Your task to perform on an android device: open app "Facebook Lite" (install if not already installed) Image 0: 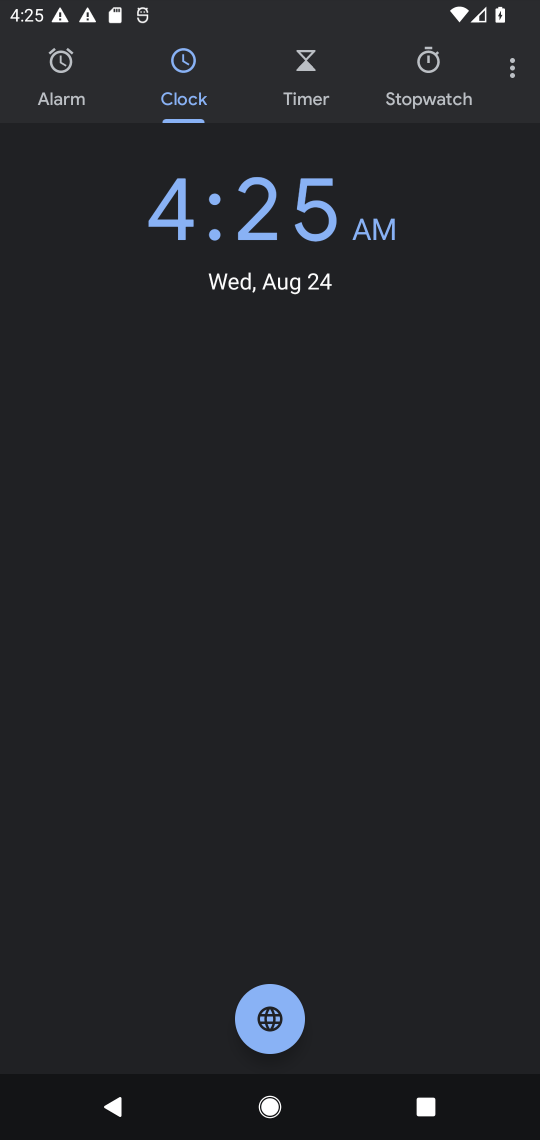
Step 0: click (269, 882)
Your task to perform on an android device: open app "Facebook Lite" (install if not already installed) Image 1: 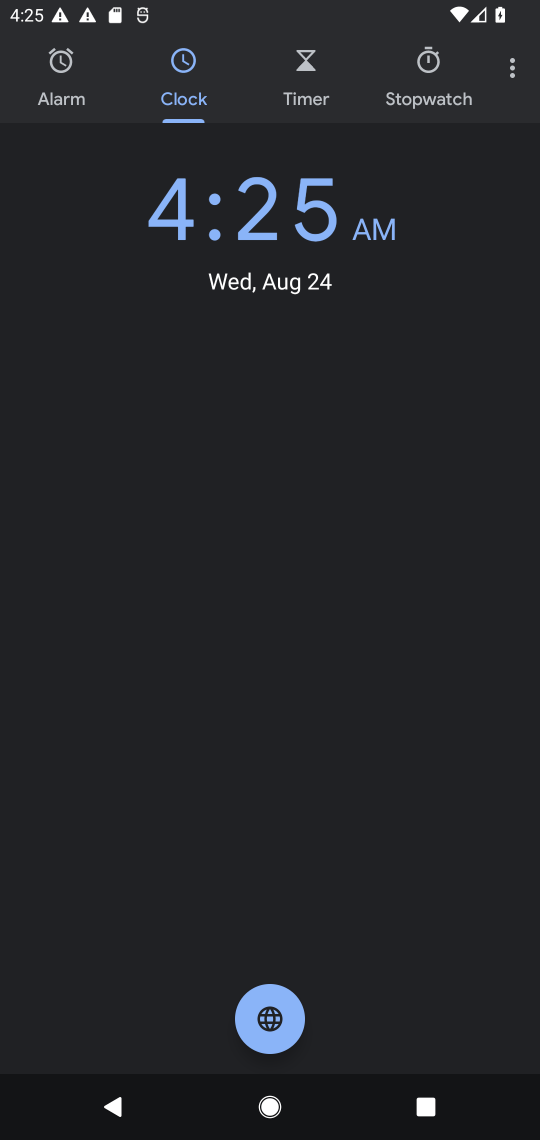
Step 1: press home button
Your task to perform on an android device: open app "Facebook Lite" (install if not already installed) Image 2: 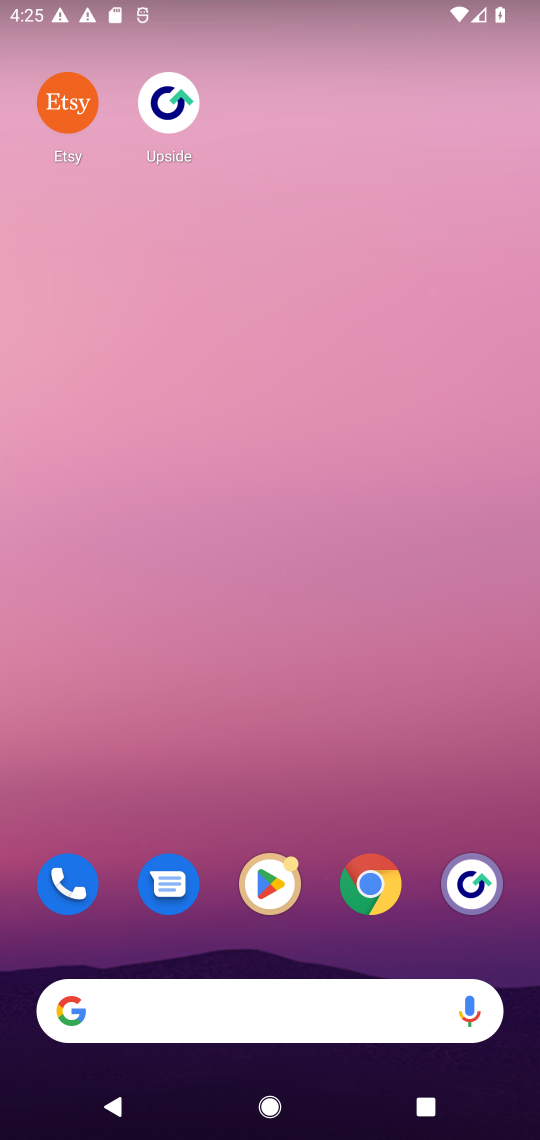
Step 2: click (268, 884)
Your task to perform on an android device: open app "Facebook Lite" (install if not already installed) Image 3: 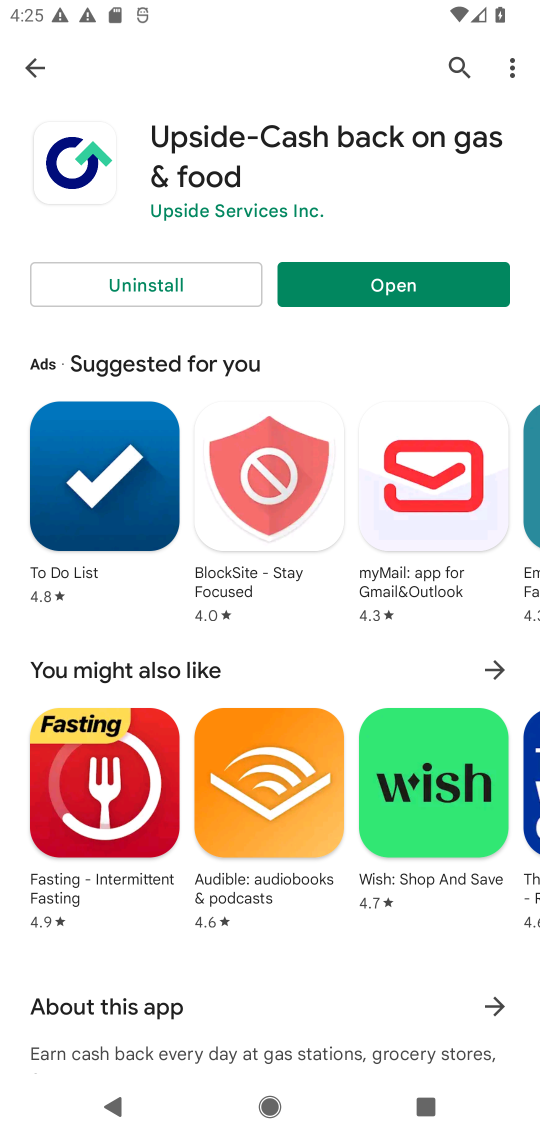
Step 3: click (37, 72)
Your task to perform on an android device: open app "Facebook Lite" (install if not already installed) Image 4: 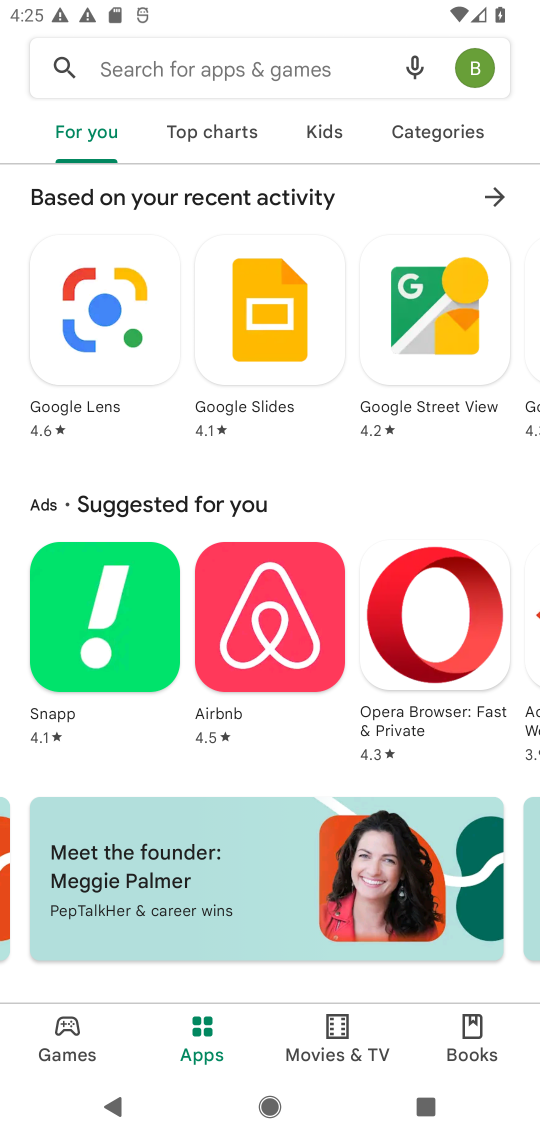
Step 4: click (247, 55)
Your task to perform on an android device: open app "Facebook Lite" (install if not already installed) Image 5: 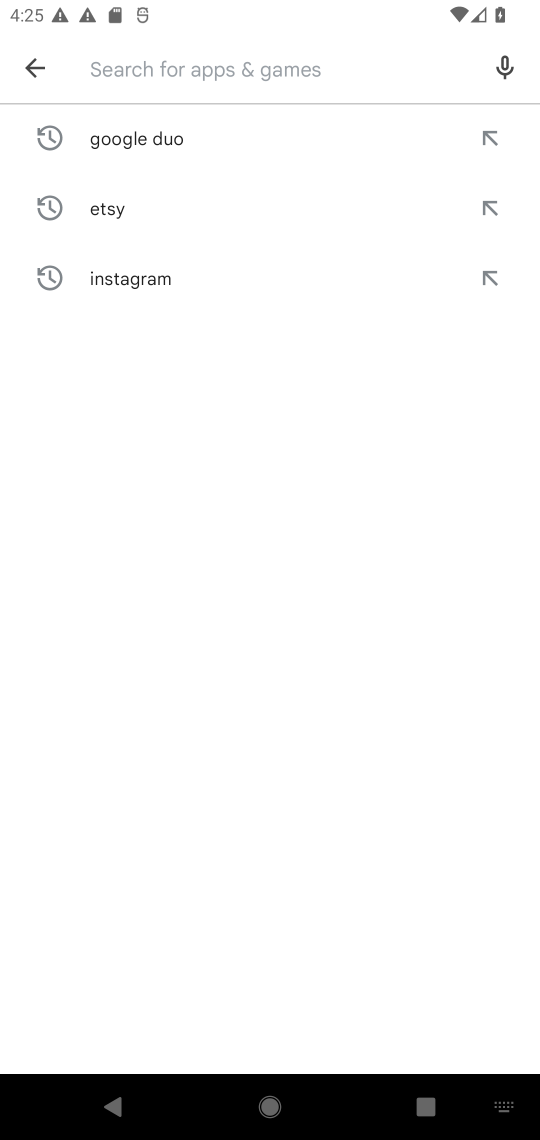
Step 5: type "Facebook Lite"
Your task to perform on an android device: open app "Facebook Lite" (install if not already installed) Image 6: 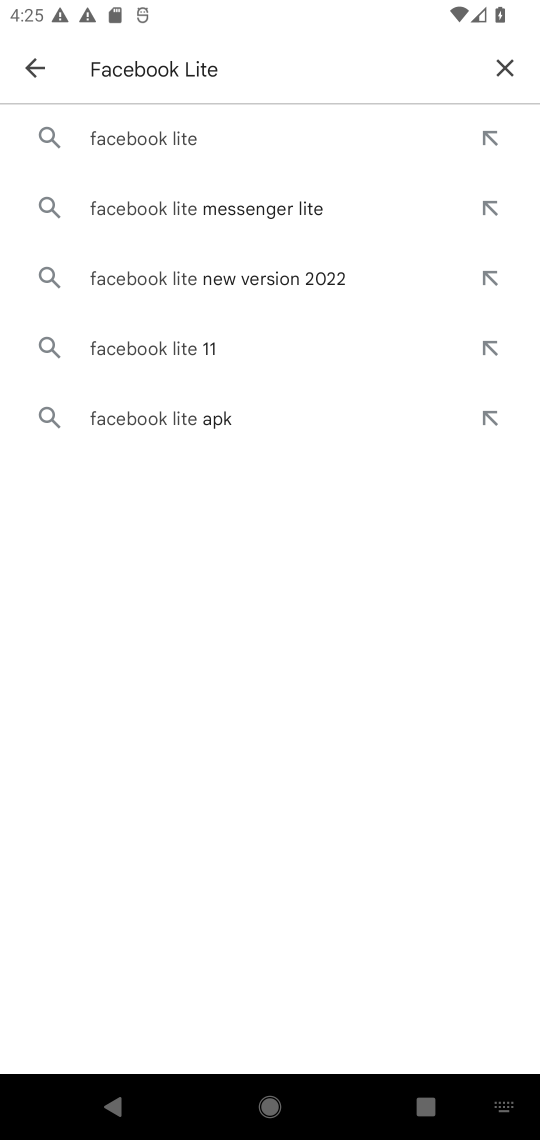
Step 6: click (137, 125)
Your task to perform on an android device: open app "Facebook Lite" (install if not already installed) Image 7: 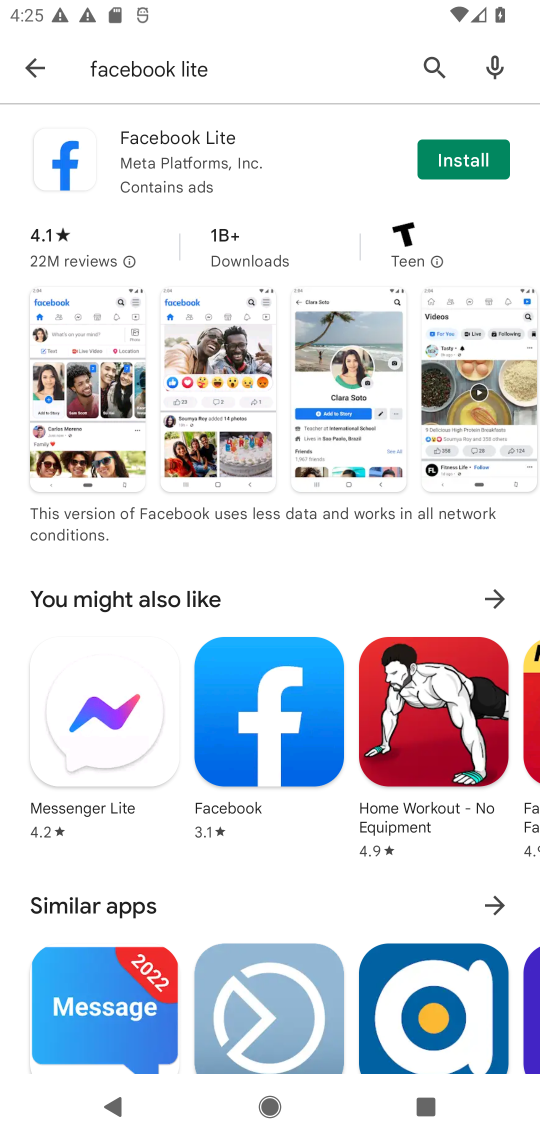
Step 7: click (473, 152)
Your task to perform on an android device: open app "Facebook Lite" (install if not already installed) Image 8: 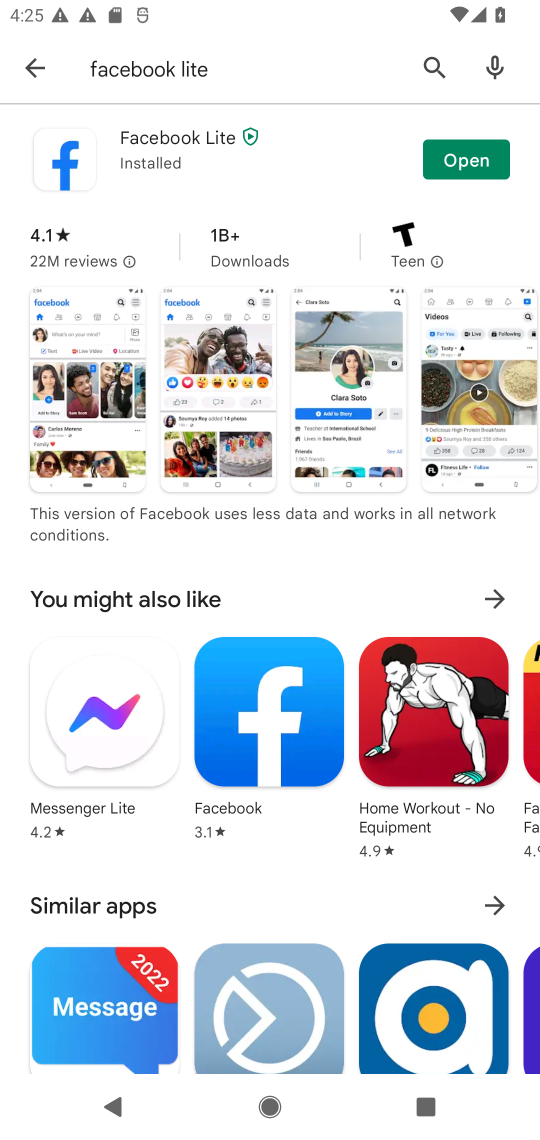
Step 8: click (473, 152)
Your task to perform on an android device: open app "Facebook Lite" (install if not already installed) Image 9: 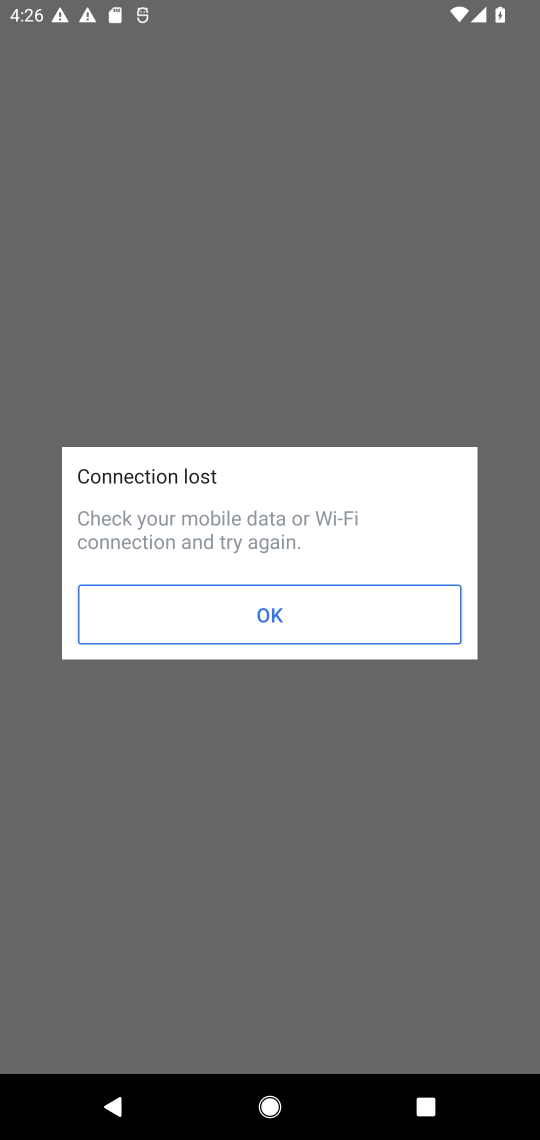
Step 9: task complete